Your task to perform on an android device: check google app version Image 0: 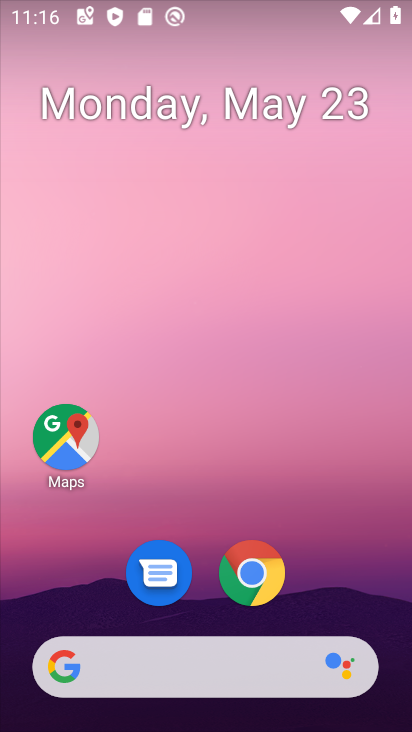
Step 0: drag from (244, 637) to (270, 332)
Your task to perform on an android device: check google app version Image 1: 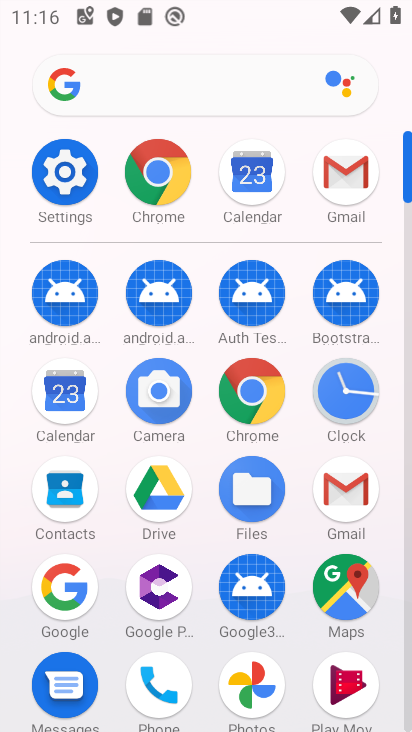
Step 1: click (77, 591)
Your task to perform on an android device: check google app version Image 2: 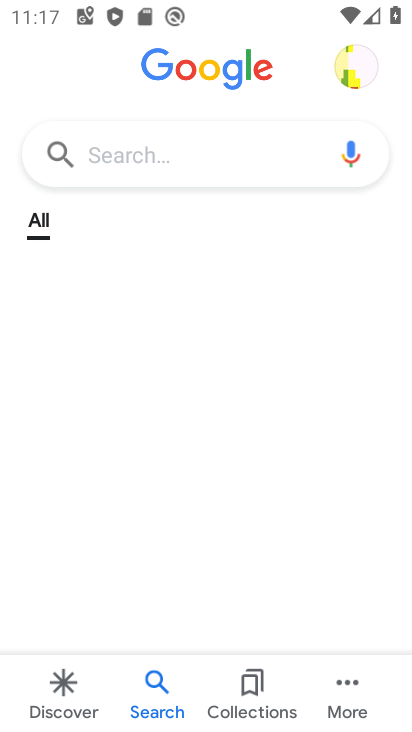
Step 2: click (343, 688)
Your task to perform on an android device: check google app version Image 3: 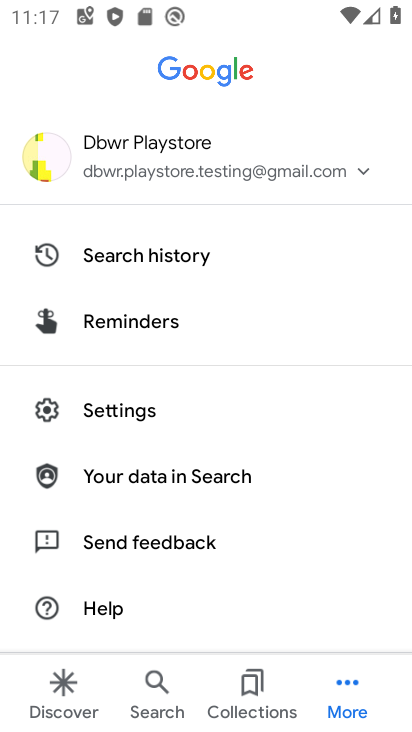
Step 3: click (190, 422)
Your task to perform on an android device: check google app version Image 4: 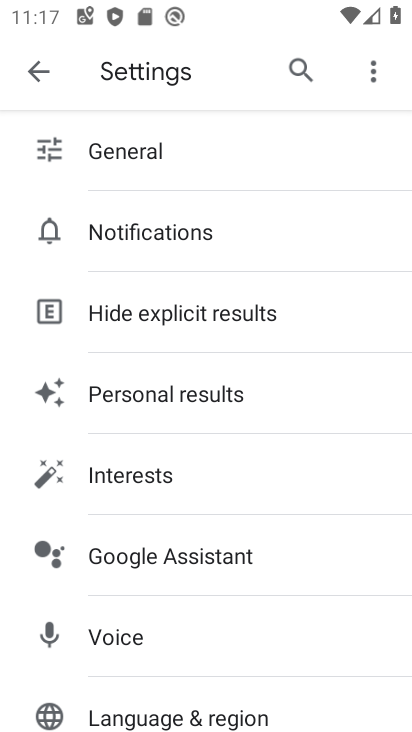
Step 4: drag from (229, 633) to (230, 182)
Your task to perform on an android device: check google app version Image 5: 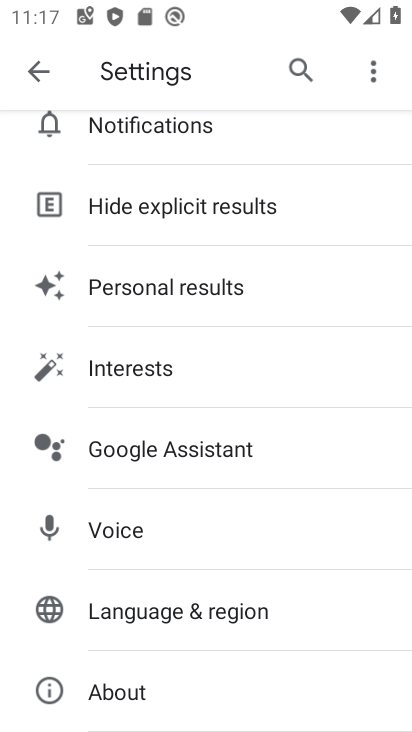
Step 5: click (260, 677)
Your task to perform on an android device: check google app version Image 6: 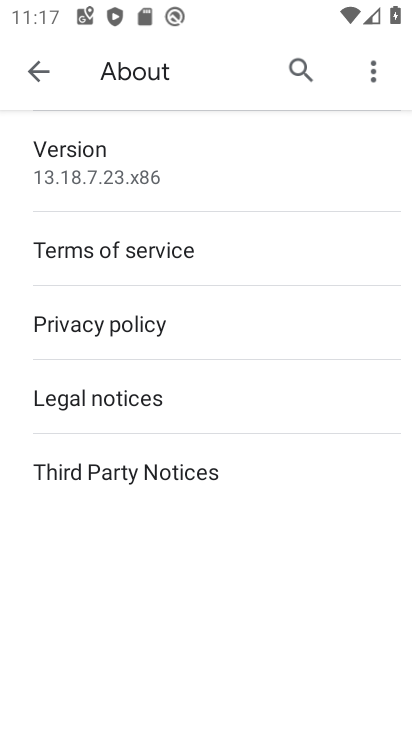
Step 6: task complete